Your task to perform on an android device: Clear the cart on newegg. Search for bose soundlink on newegg, select the first entry, and add it to the cart. Image 0: 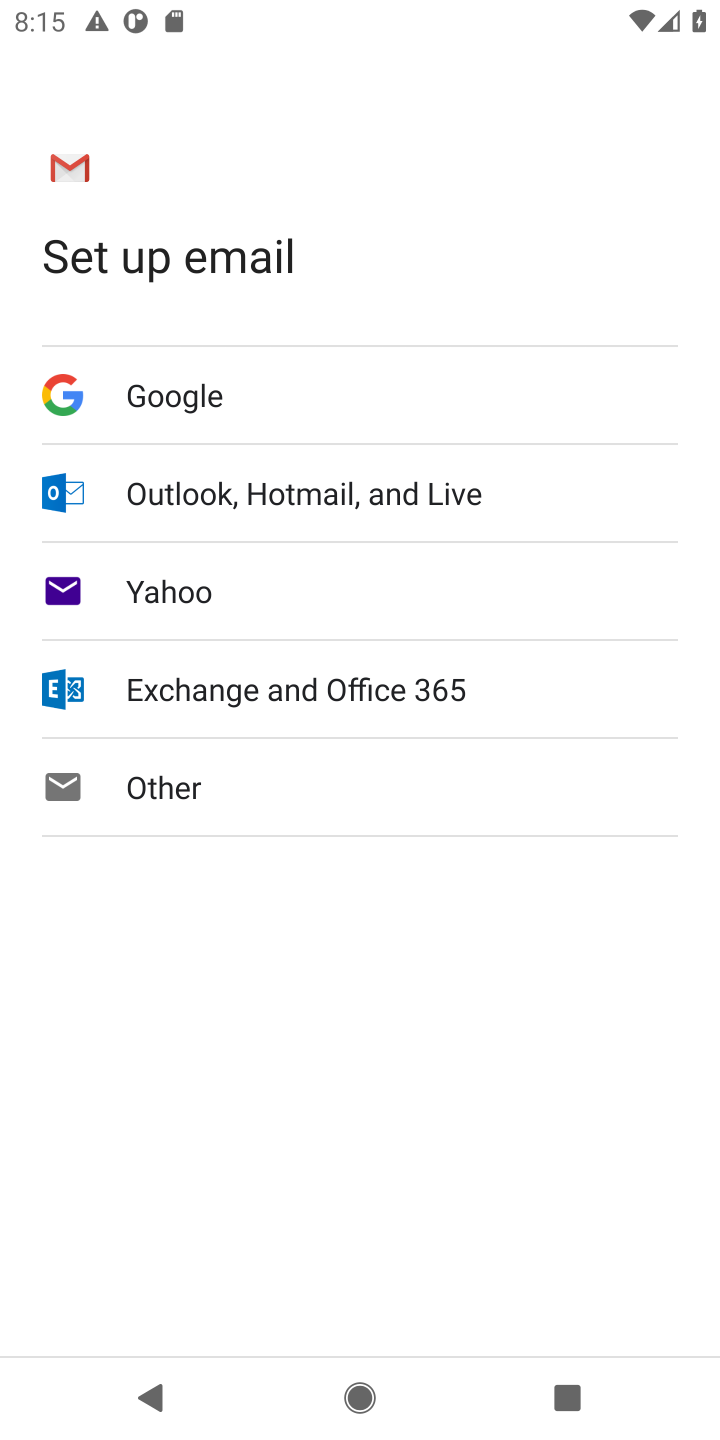
Step 0: press home button
Your task to perform on an android device: Clear the cart on newegg. Search for bose soundlink on newegg, select the first entry, and add it to the cart. Image 1: 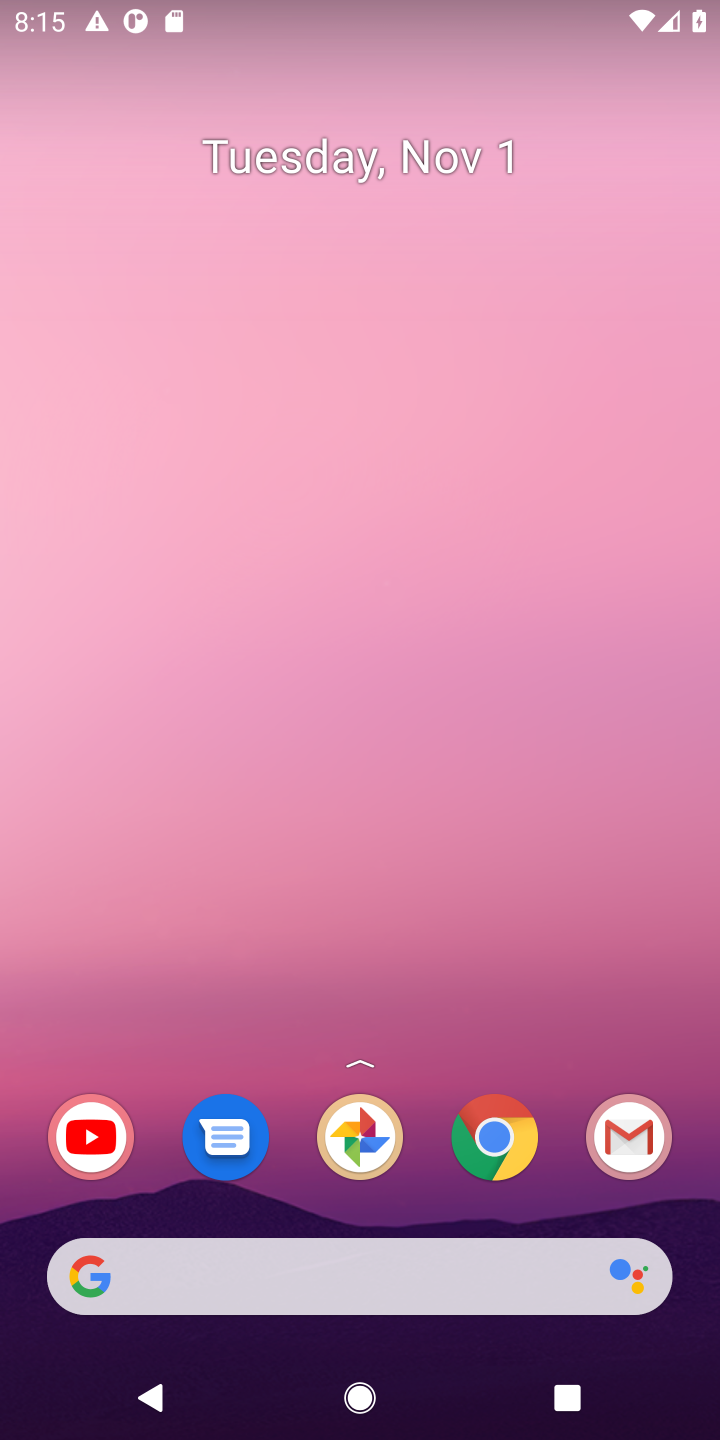
Step 1: click (329, 1288)
Your task to perform on an android device: Clear the cart on newegg. Search for bose soundlink on newegg, select the first entry, and add it to the cart. Image 2: 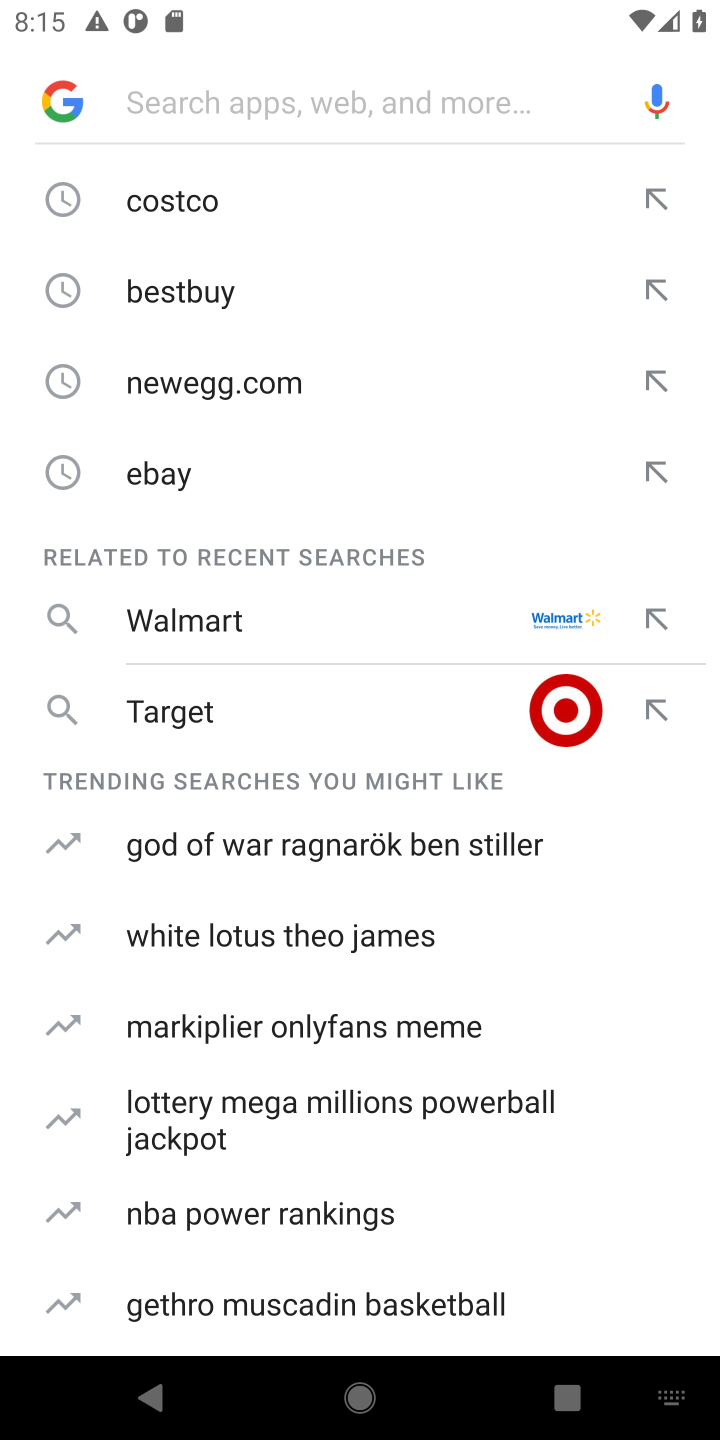
Step 2: type "newegg"
Your task to perform on an android device: Clear the cart on newegg. Search for bose soundlink on newegg, select the first entry, and add it to the cart. Image 3: 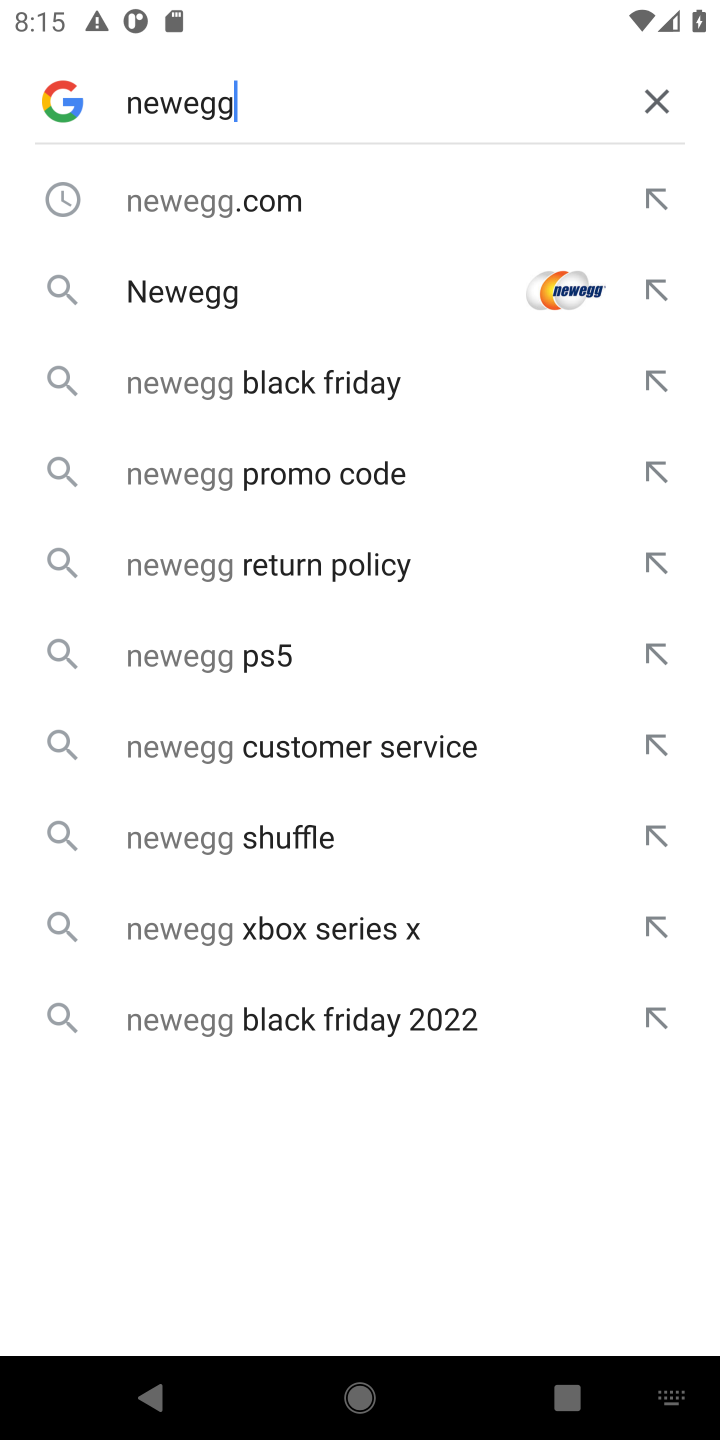
Step 3: click (214, 296)
Your task to perform on an android device: Clear the cart on newegg. Search for bose soundlink on newegg, select the first entry, and add it to the cart. Image 4: 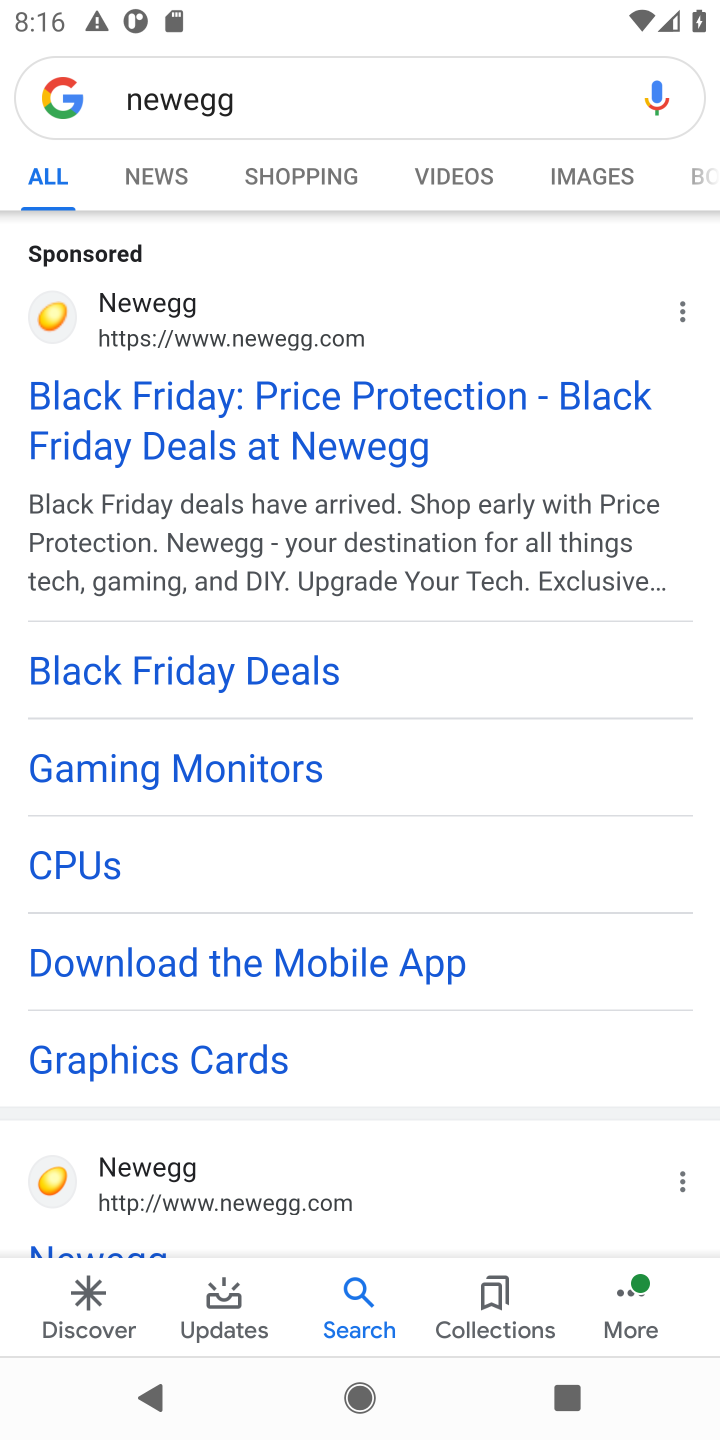
Step 4: click (152, 295)
Your task to perform on an android device: Clear the cart on newegg. Search for bose soundlink on newegg, select the first entry, and add it to the cart. Image 5: 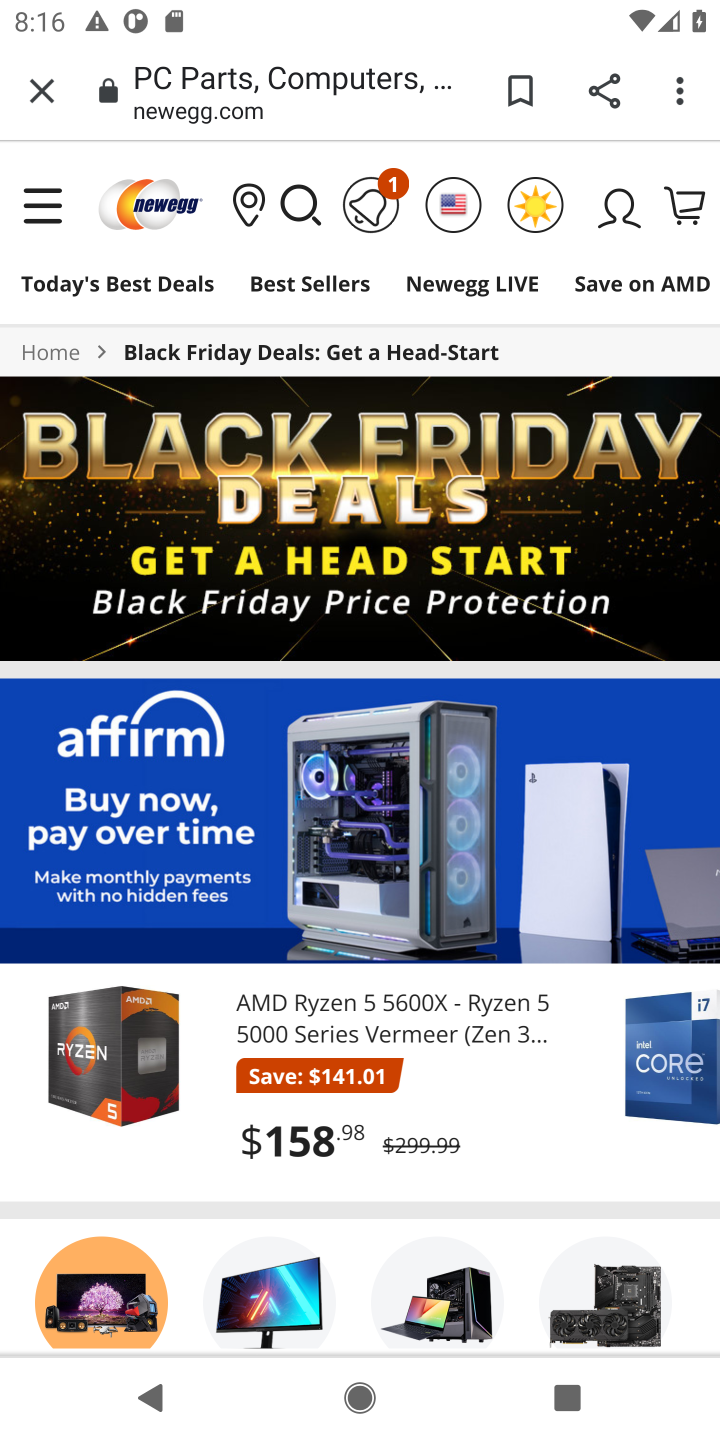
Step 5: click (306, 202)
Your task to perform on an android device: Clear the cart on newegg. Search for bose soundlink on newegg, select the first entry, and add it to the cart. Image 6: 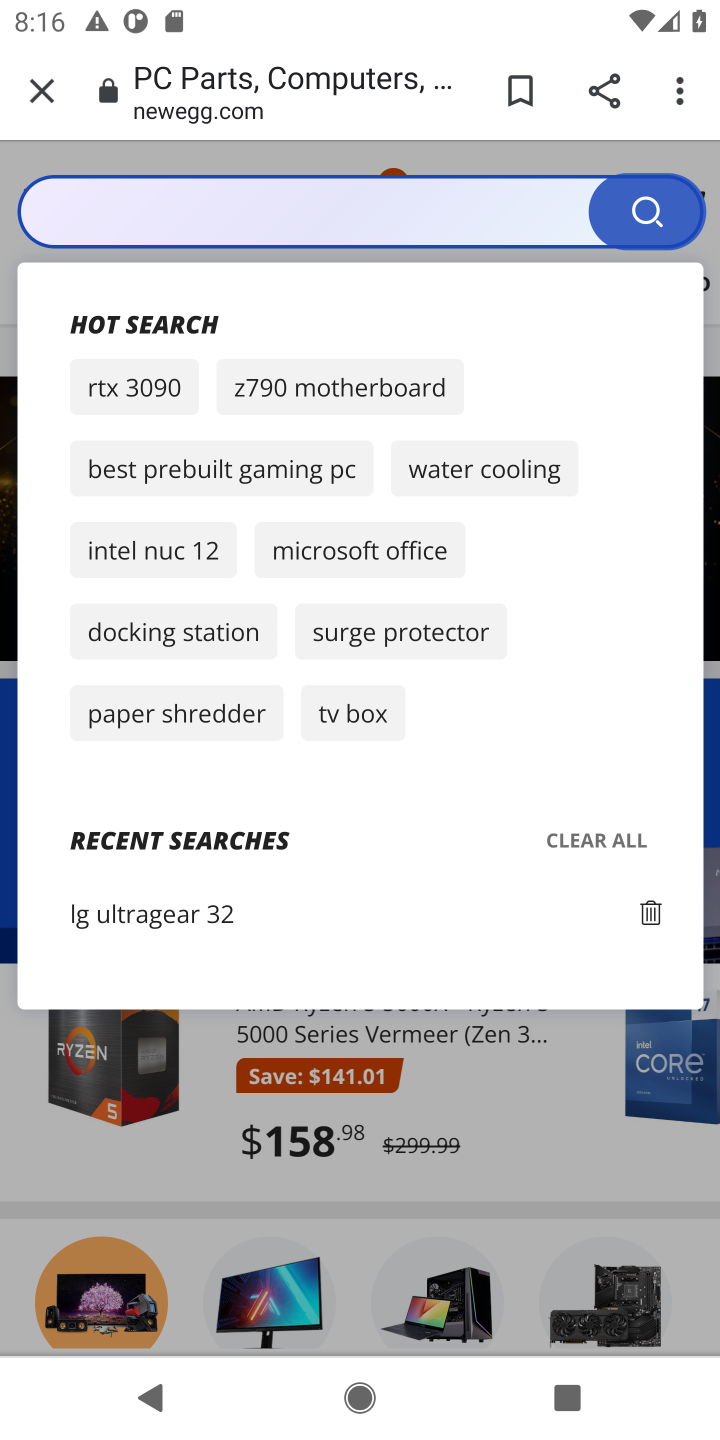
Step 6: click (321, 211)
Your task to perform on an android device: Clear the cart on newegg. Search for bose soundlink on newegg, select the first entry, and add it to the cart. Image 7: 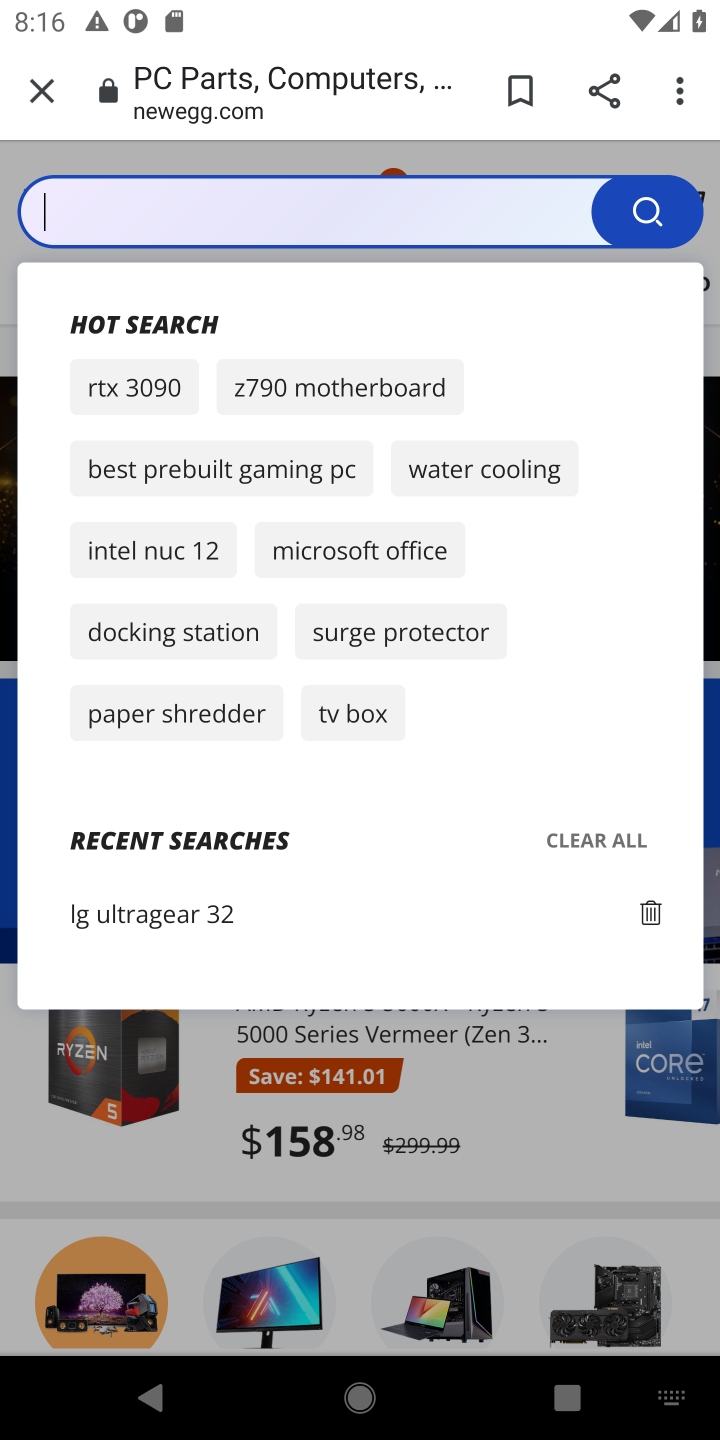
Step 7: type "bose soundlink "
Your task to perform on an android device: Clear the cart on newegg. Search for bose soundlink on newegg, select the first entry, and add it to the cart. Image 8: 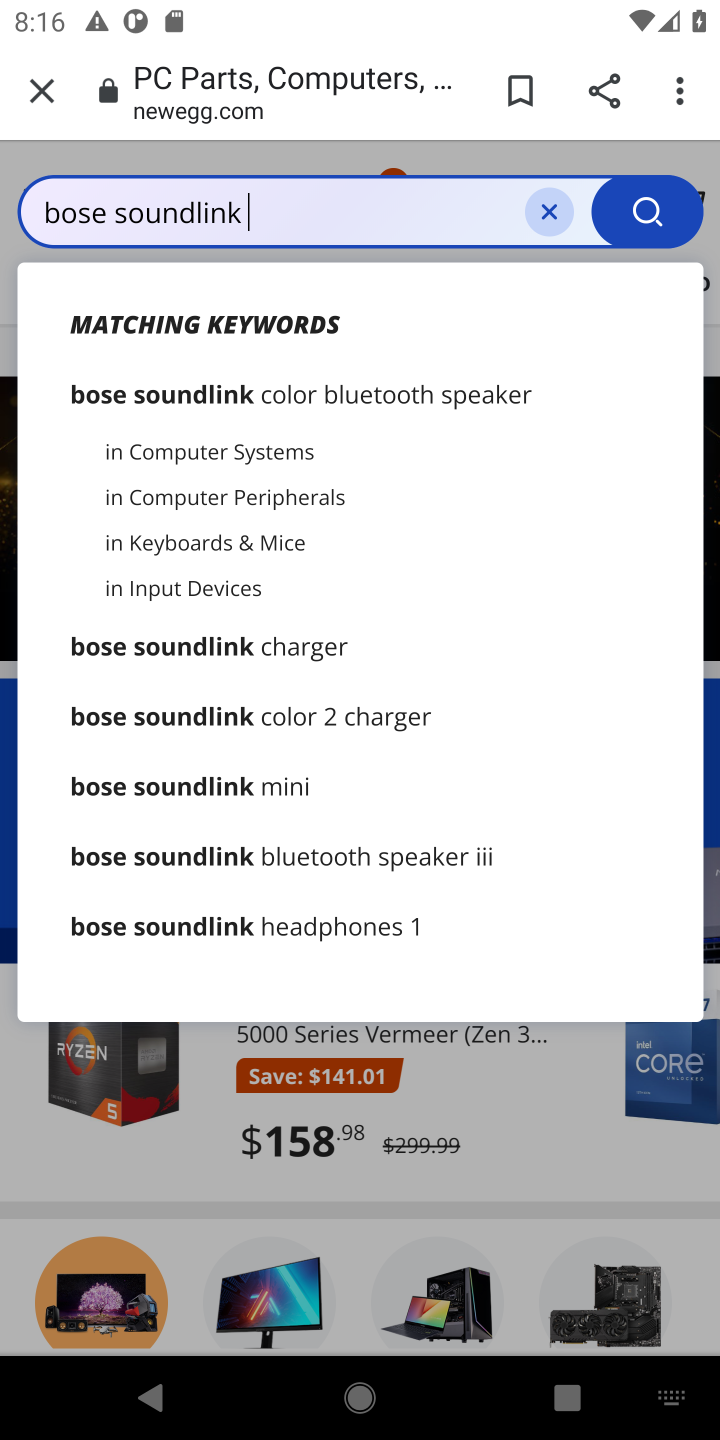
Step 8: click (323, 398)
Your task to perform on an android device: Clear the cart on newegg. Search for bose soundlink on newegg, select the first entry, and add it to the cart. Image 9: 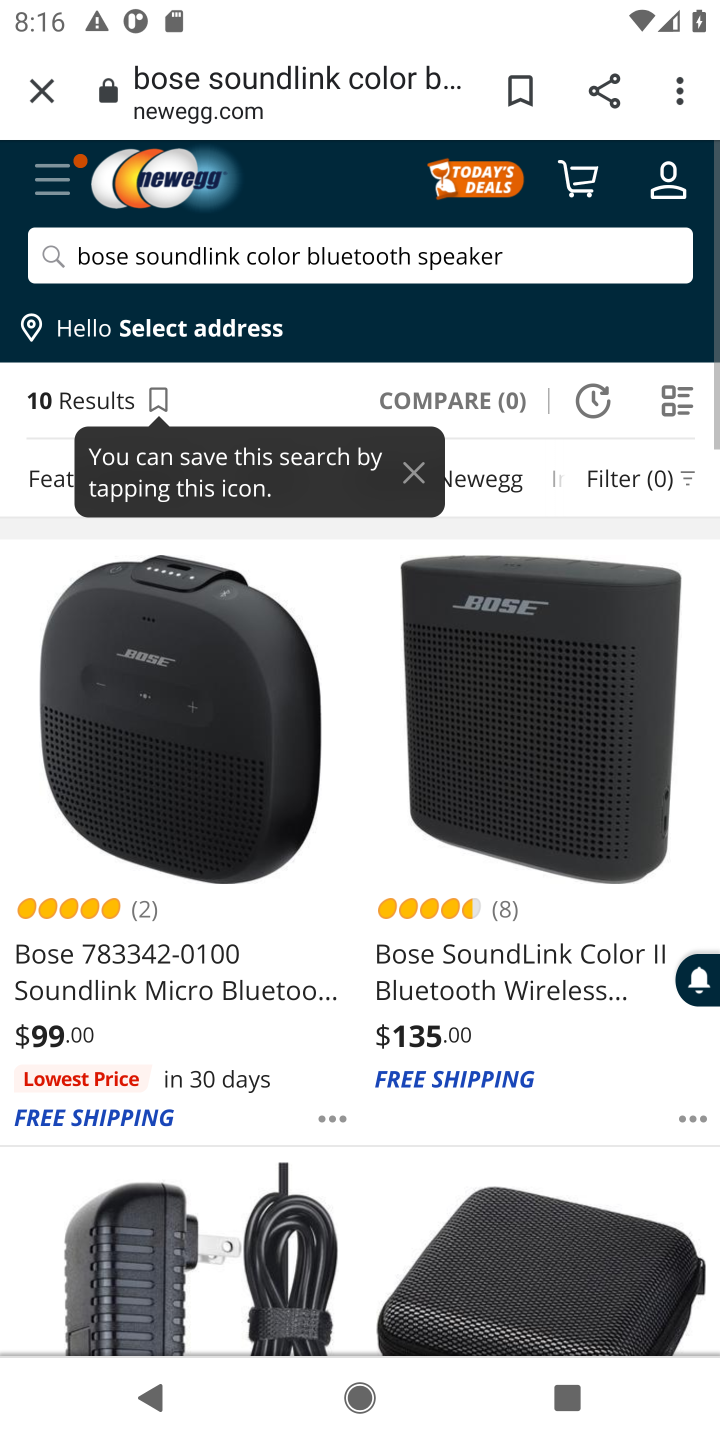
Step 9: click (79, 922)
Your task to perform on an android device: Clear the cart on newegg. Search for bose soundlink on newegg, select the first entry, and add it to the cart. Image 10: 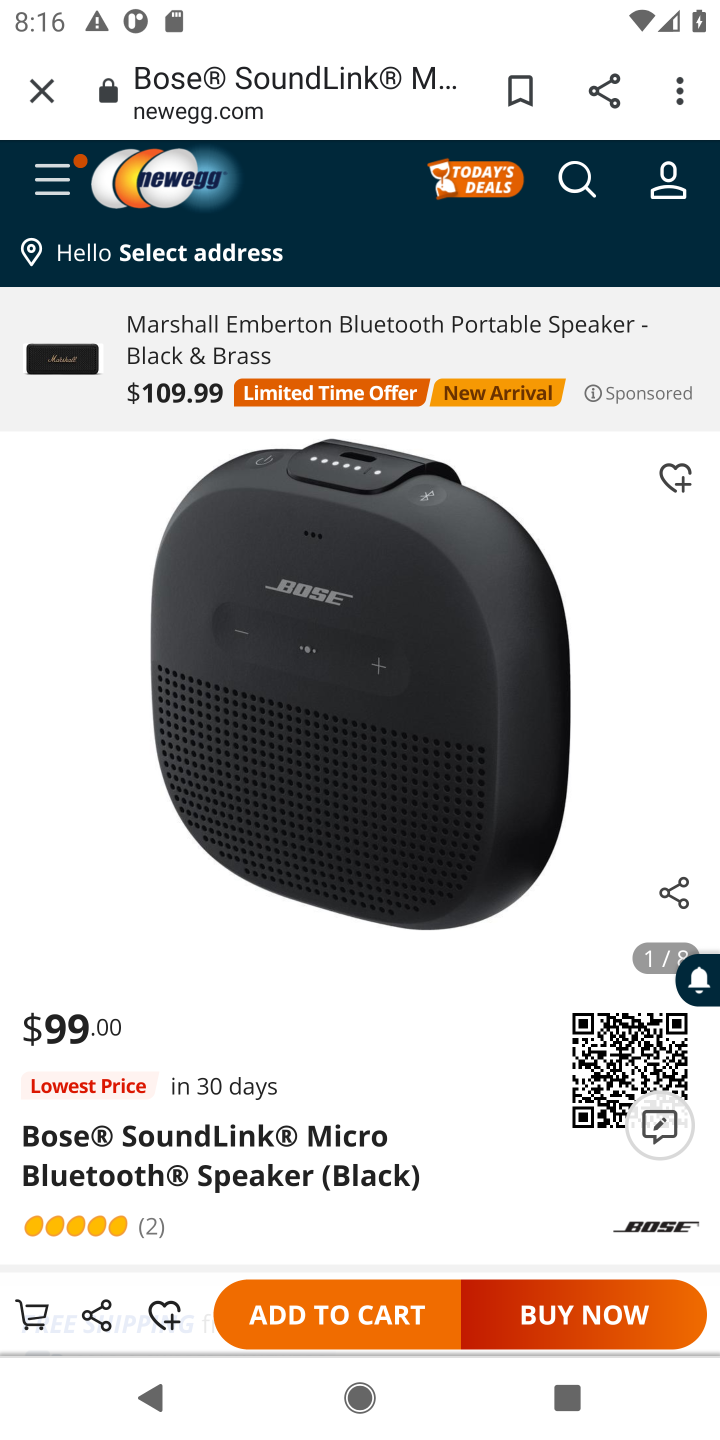
Step 10: click (311, 1319)
Your task to perform on an android device: Clear the cart on newegg. Search for bose soundlink on newegg, select the first entry, and add it to the cart. Image 11: 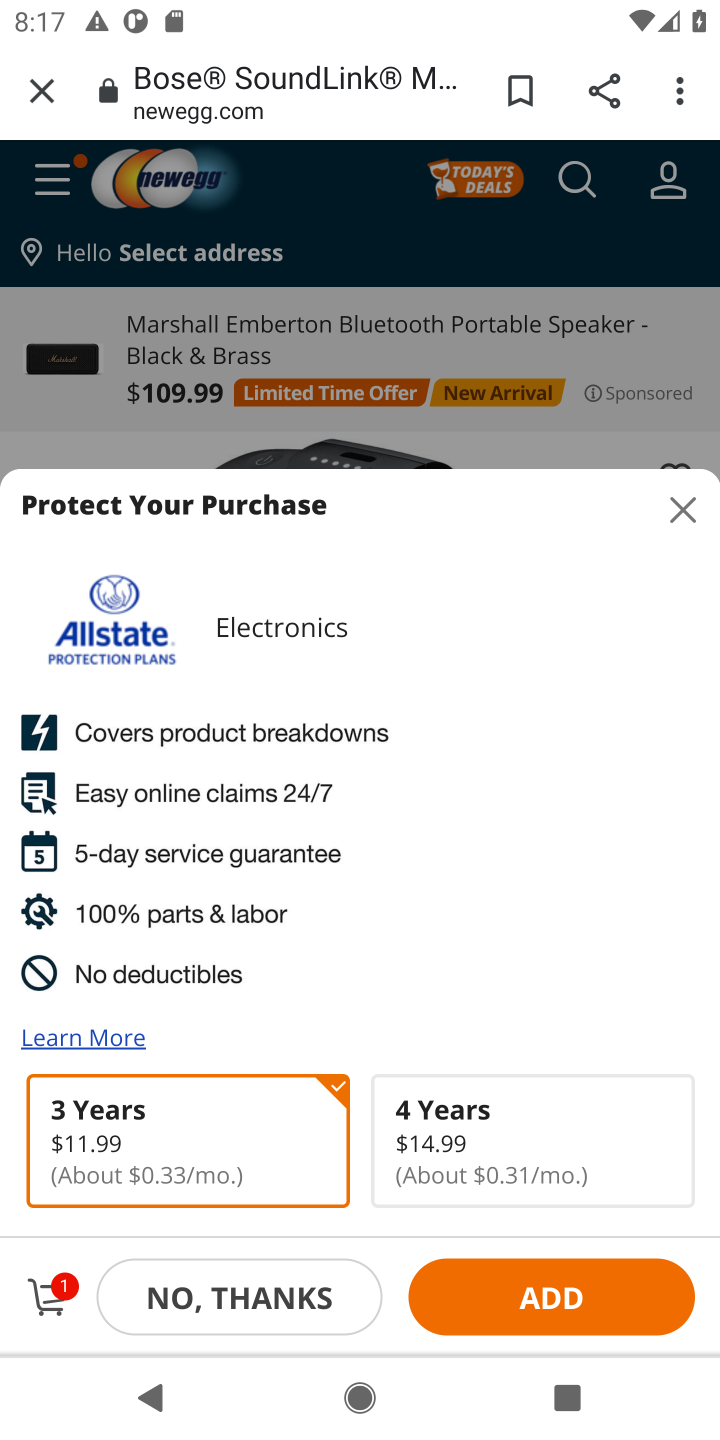
Step 11: task complete